Your task to perform on an android device: turn on the 12-hour format for clock Image 0: 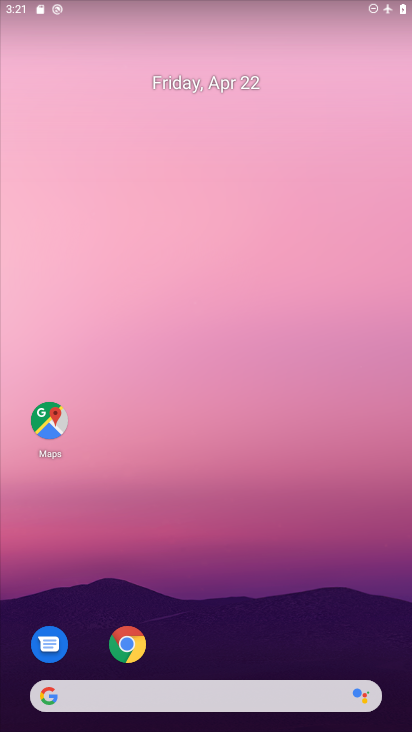
Step 0: drag from (270, 576) to (259, 89)
Your task to perform on an android device: turn on the 12-hour format for clock Image 1: 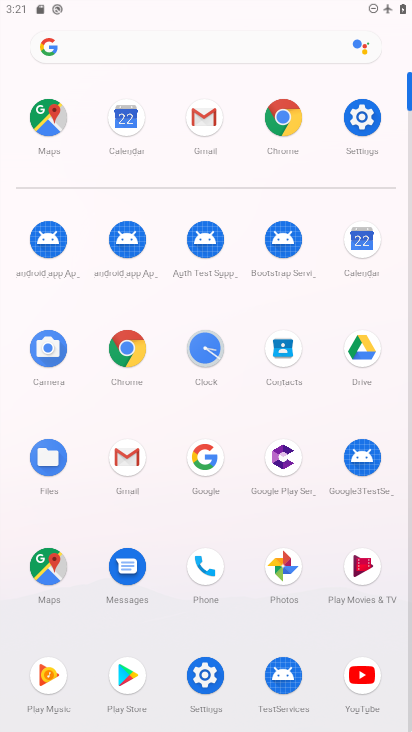
Step 1: click (197, 343)
Your task to perform on an android device: turn on the 12-hour format for clock Image 2: 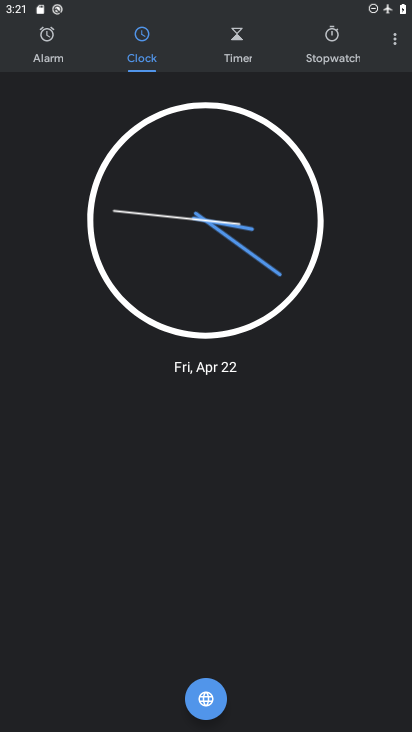
Step 2: click (396, 38)
Your task to perform on an android device: turn on the 12-hour format for clock Image 3: 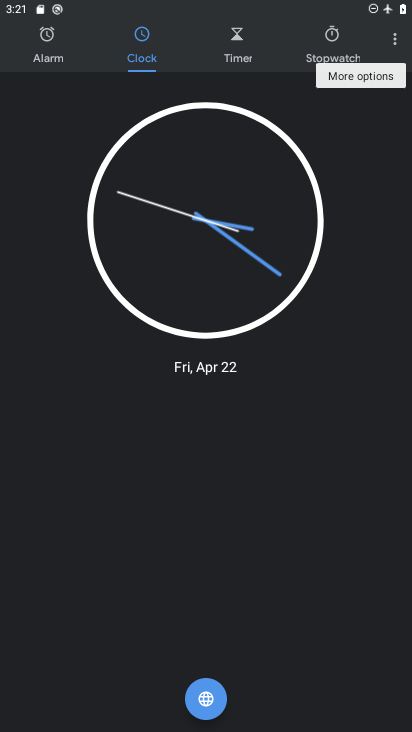
Step 3: click (389, 43)
Your task to perform on an android device: turn on the 12-hour format for clock Image 4: 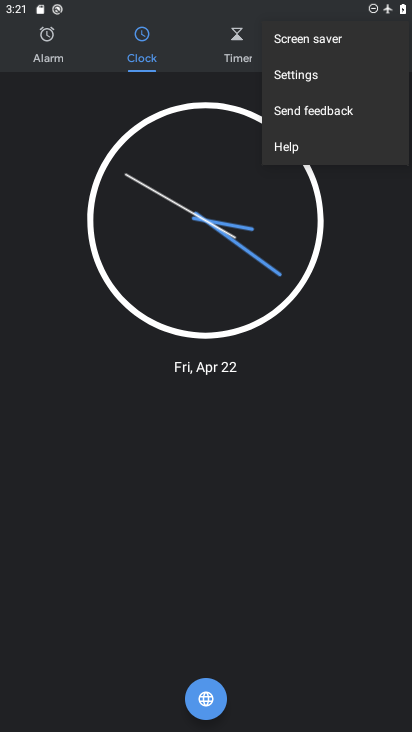
Step 4: click (300, 78)
Your task to perform on an android device: turn on the 12-hour format for clock Image 5: 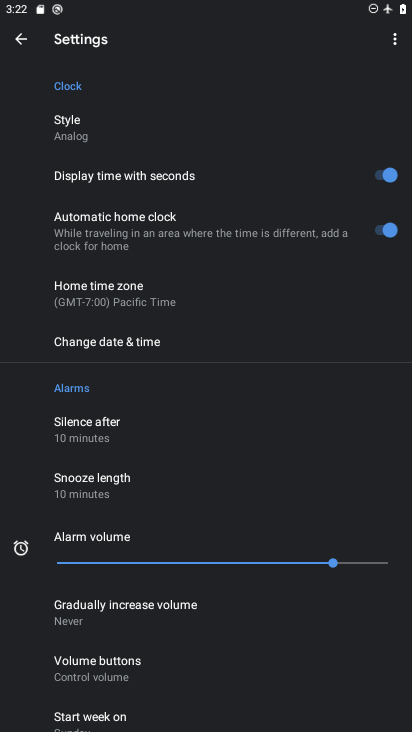
Step 5: click (147, 338)
Your task to perform on an android device: turn on the 12-hour format for clock Image 6: 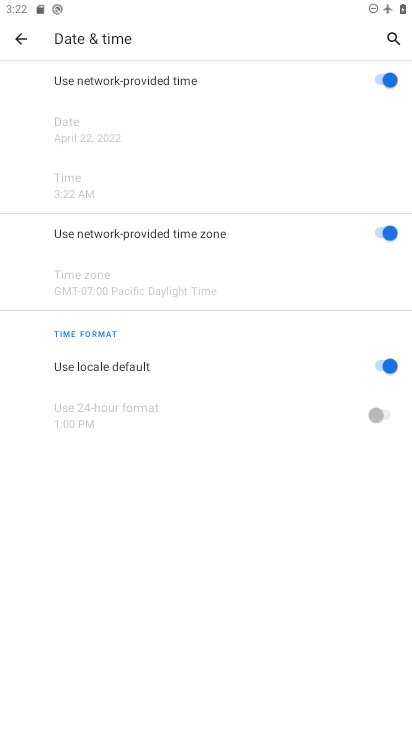
Step 6: task complete